Your task to perform on an android device: Go to Google Image 0: 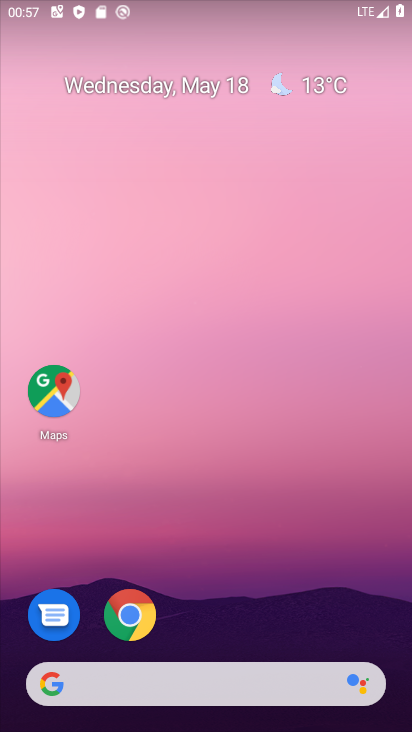
Step 0: drag from (233, 684) to (334, 230)
Your task to perform on an android device: Go to Google Image 1: 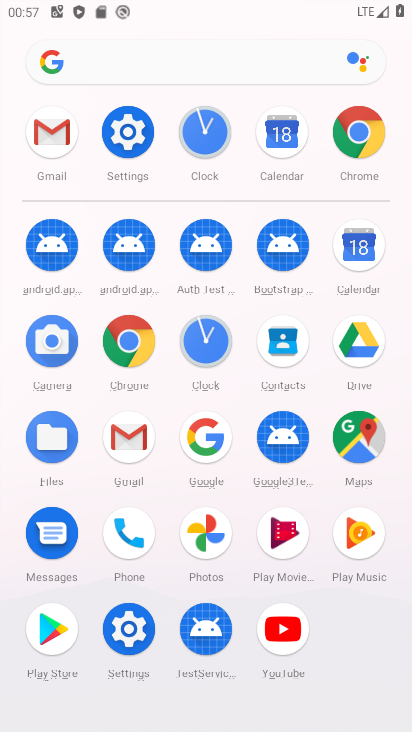
Step 1: drag from (209, 448) to (286, 448)
Your task to perform on an android device: Go to Google Image 2: 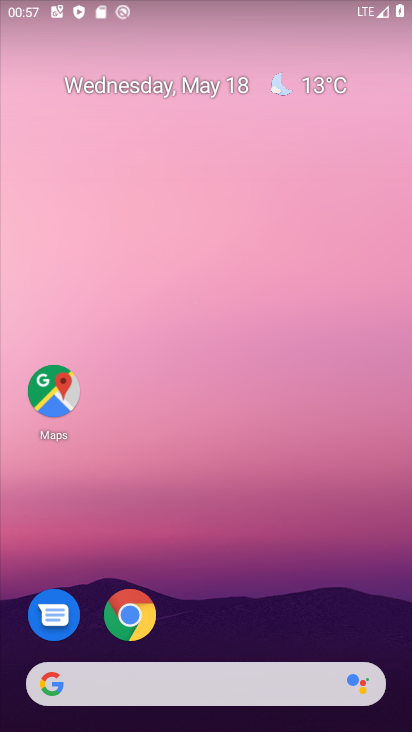
Step 2: drag from (216, 543) to (312, 287)
Your task to perform on an android device: Go to Google Image 3: 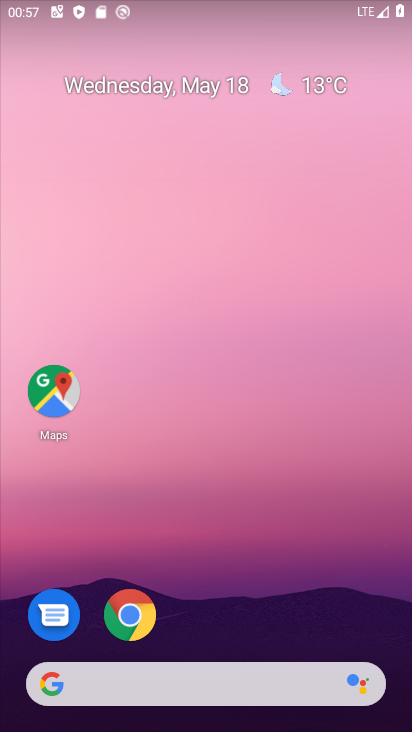
Step 3: drag from (176, 673) to (352, 98)
Your task to perform on an android device: Go to Google Image 4: 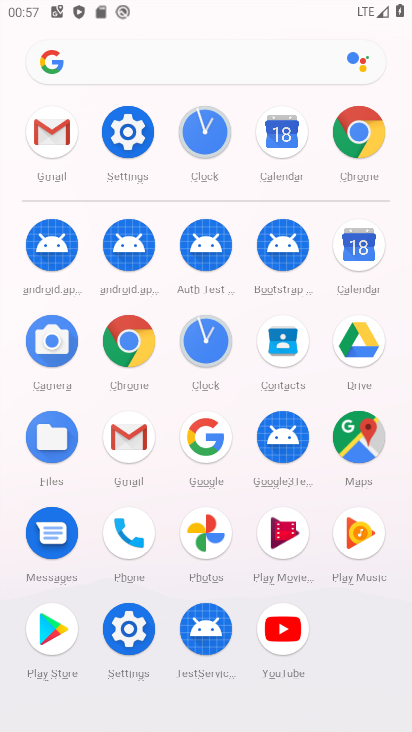
Step 4: click (213, 445)
Your task to perform on an android device: Go to Google Image 5: 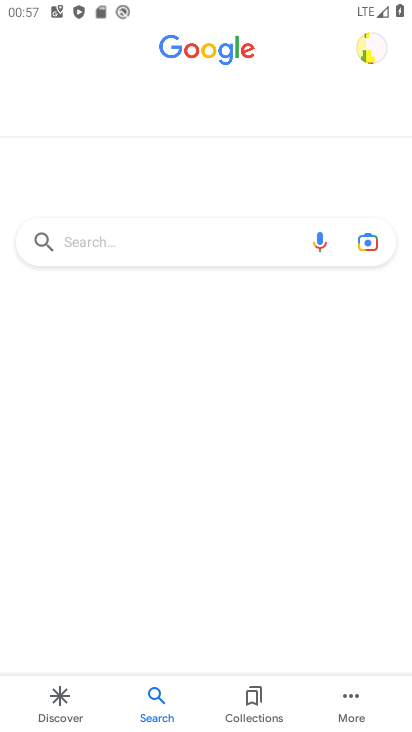
Step 5: click (59, 705)
Your task to perform on an android device: Go to Google Image 6: 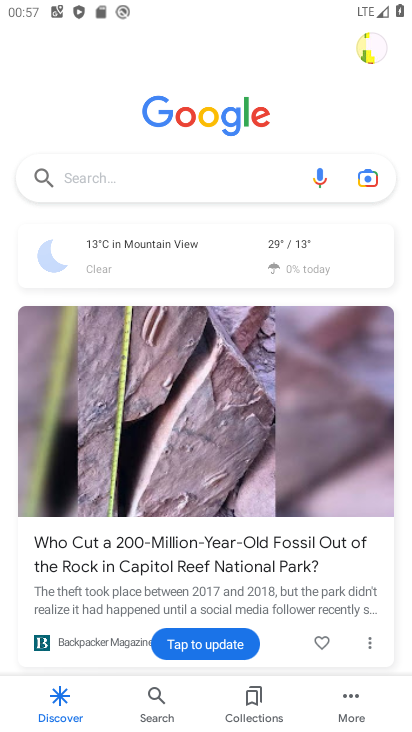
Step 6: task complete